Your task to perform on an android device: turn off picture-in-picture Image 0: 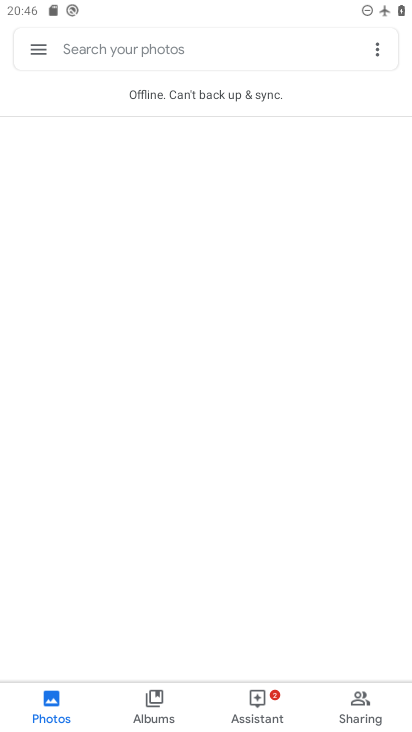
Step 0: press home button
Your task to perform on an android device: turn off picture-in-picture Image 1: 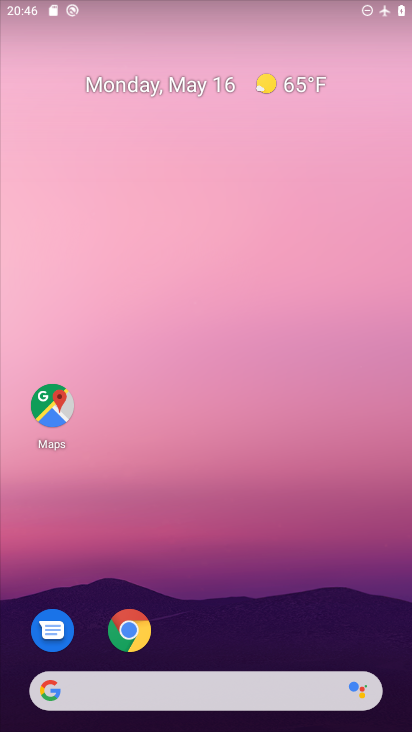
Step 1: click (146, 615)
Your task to perform on an android device: turn off picture-in-picture Image 2: 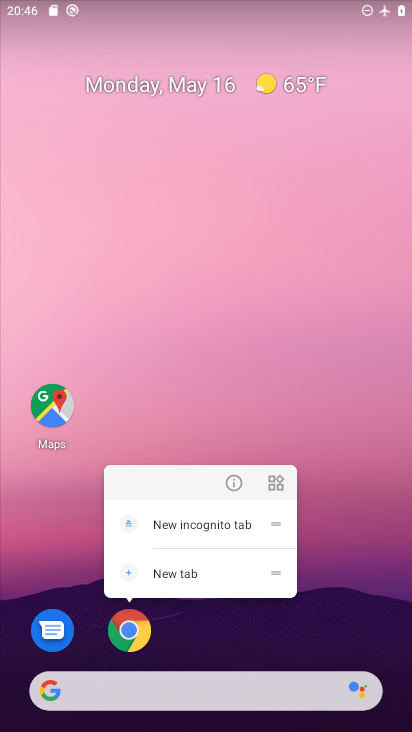
Step 2: click (233, 482)
Your task to perform on an android device: turn off picture-in-picture Image 3: 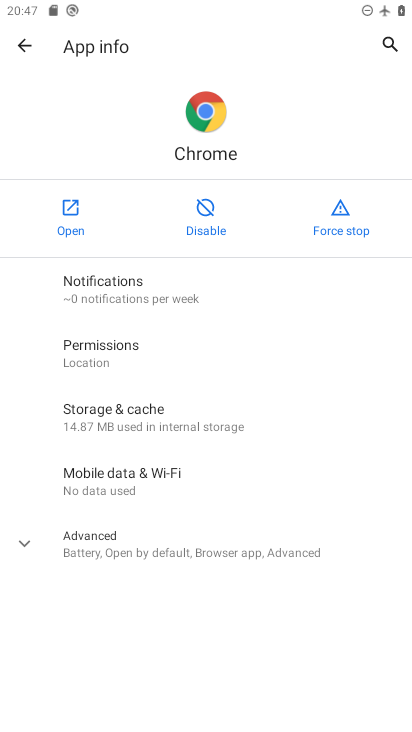
Step 3: click (131, 562)
Your task to perform on an android device: turn off picture-in-picture Image 4: 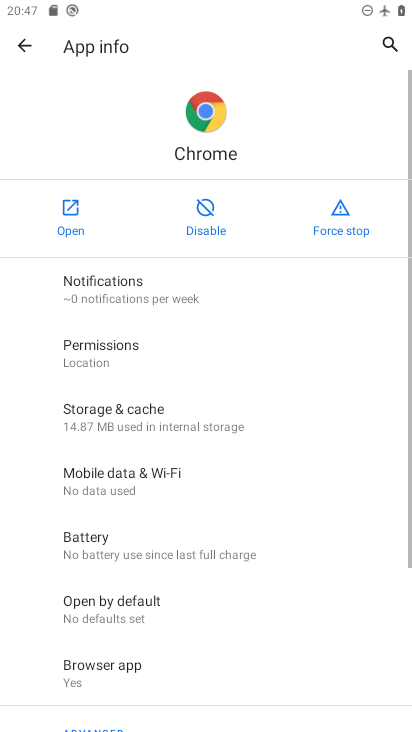
Step 4: drag from (132, 561) to (175, 274)
Your task to perform on an android device: turn off picture-in-picture Image 5: 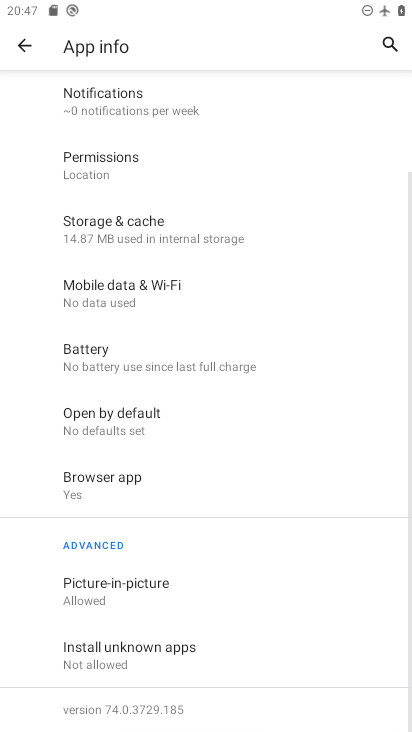
Step 5: click (137, 585)
Your task to perform on an android device: turn off picture-in-picture Image 6: 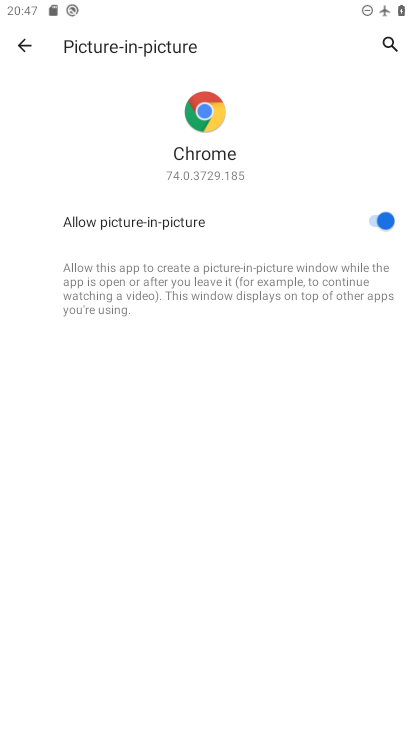
Step 6: click (375, 219)
Your task to perform on an android device: turn off picture-in-picture Image 7: 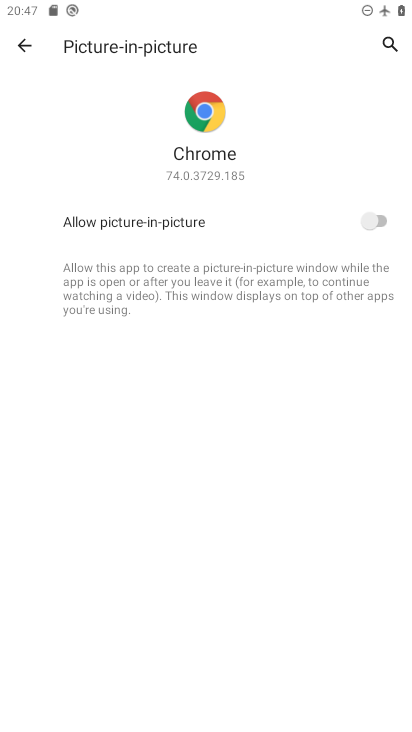
Step 7: task complete